Your task to perform on an android device: turn off sleep mode Image 0: 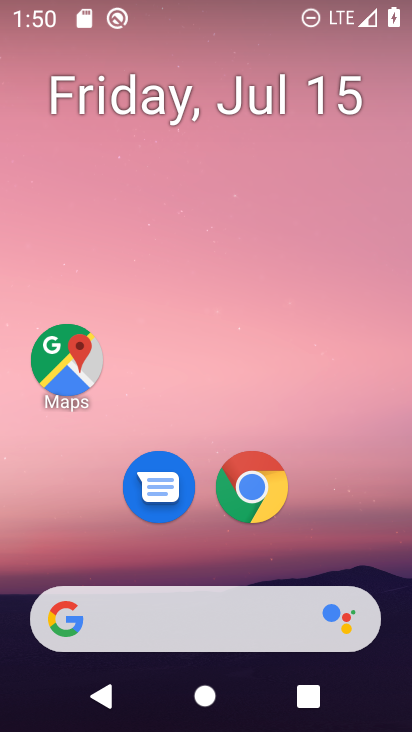
Step 0: drag from (189, 617) to (159, 201)
Your task to perform on an android device: turn off sleep mode Image 1: 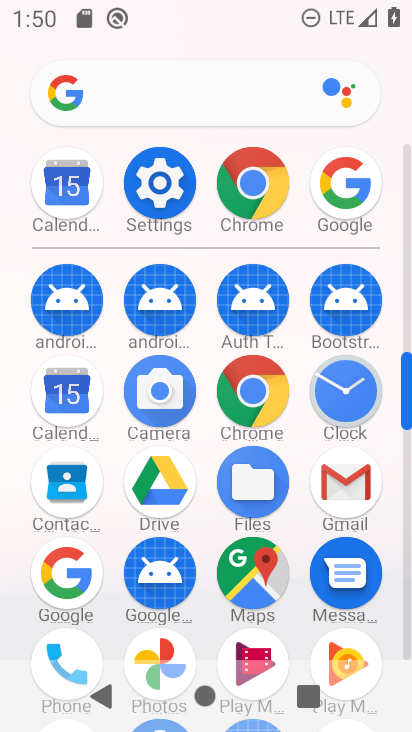
Step 1: click (163, 208)
Your task to perform on an android device: turn off sleep mode Image 2: 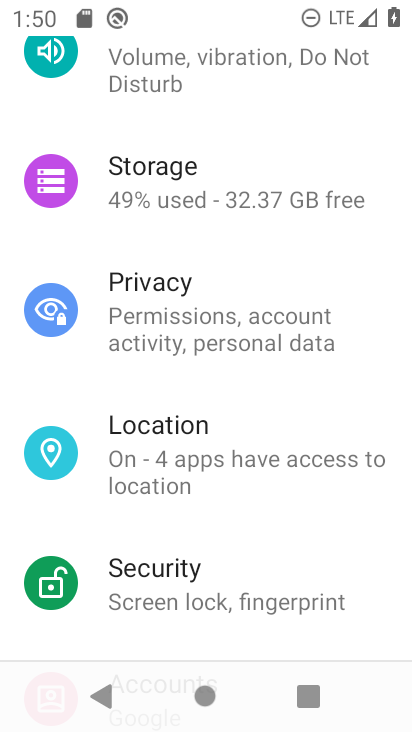
Step 2: drag from (181, 304) to (240, 554)
Your task to perform on an android device: turn off sleep mode Image 3: 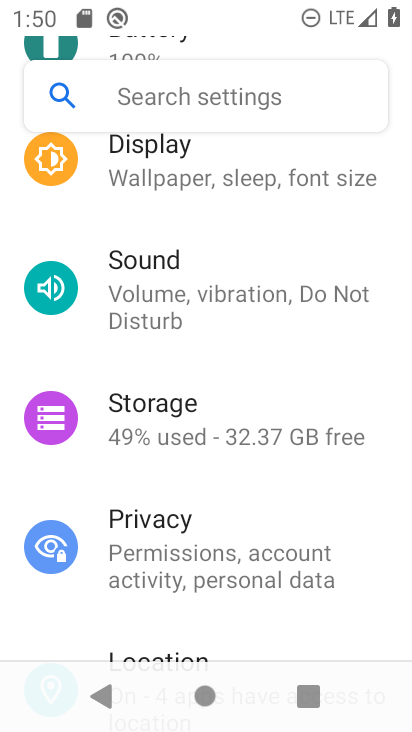
Step 3: click (183, 161)
Your task to perform on an android device: turn off sleep mode Image 4: 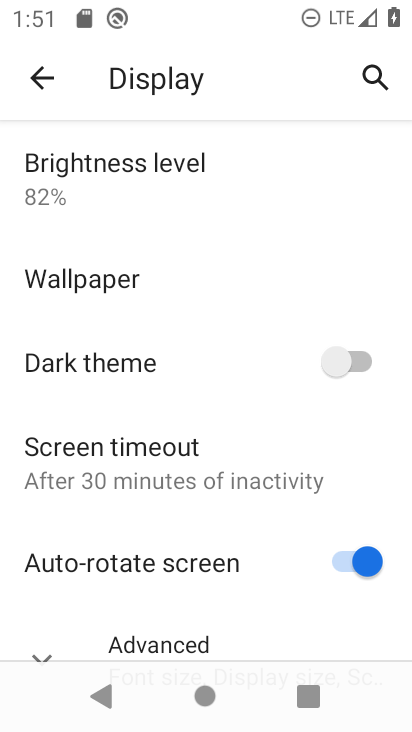
Step 4: click (159, 649)
Your task to perform on an android device: turn off sleep mode Image 5: 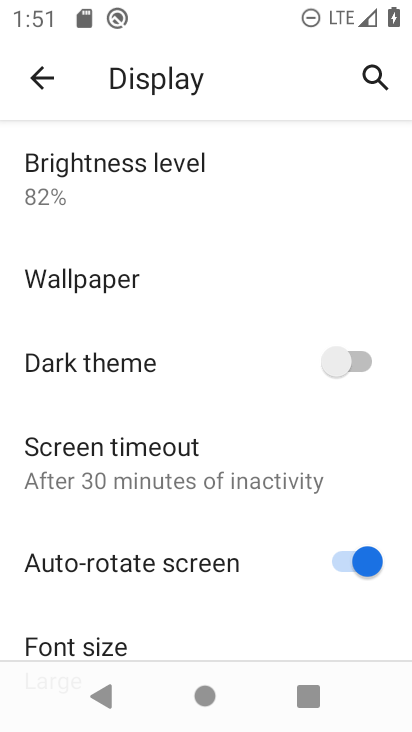
Step 5: task complete